Your task to perform on an android device: see tabs open on other devices in the chrome app Image 0: 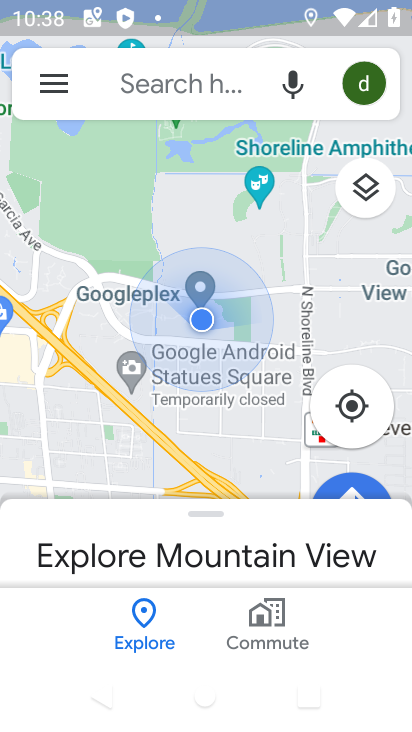
Step 0: press home button
Your task to perform on an android device: see tabs open on other devices in the chrome app Image 1: 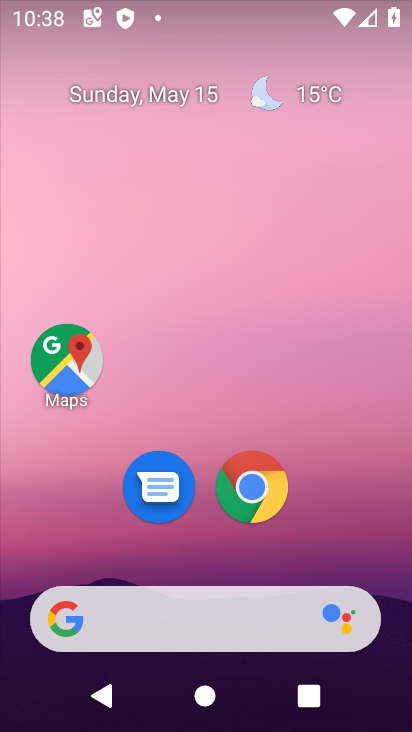
Step 1: click (253, 487)
Your task to perform on an android device: see tabs open on other devices in the chrome app Image 2: 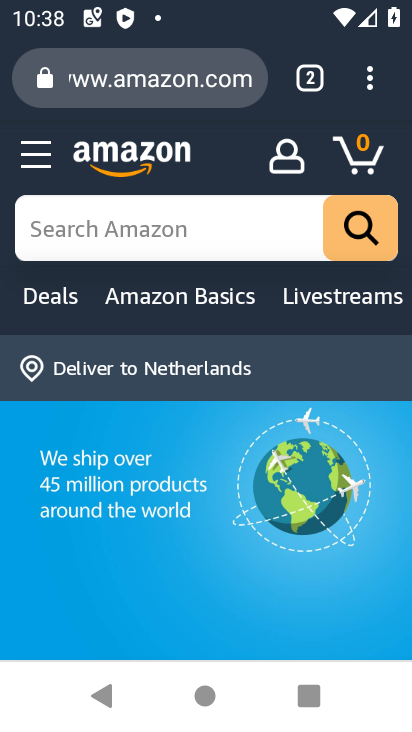
Step 2: click (372, 86)
Your task to perform on an android device: see tabs open on other devices in the chrome app Image 3: 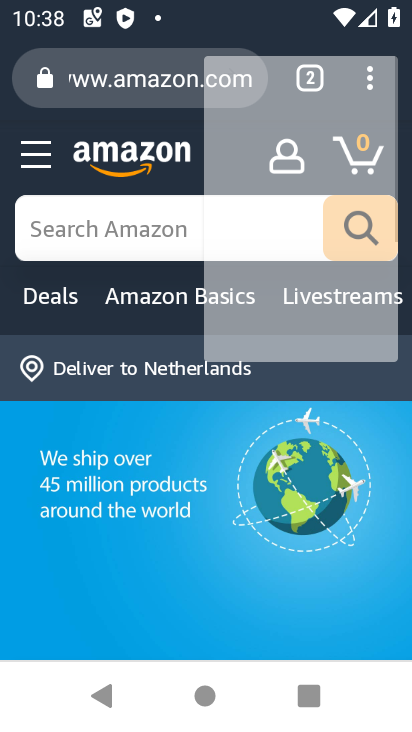
Step 3: click (372, 86)
Your task to perform on an android device: see tabs open on other devices in the chrome app Image 4: 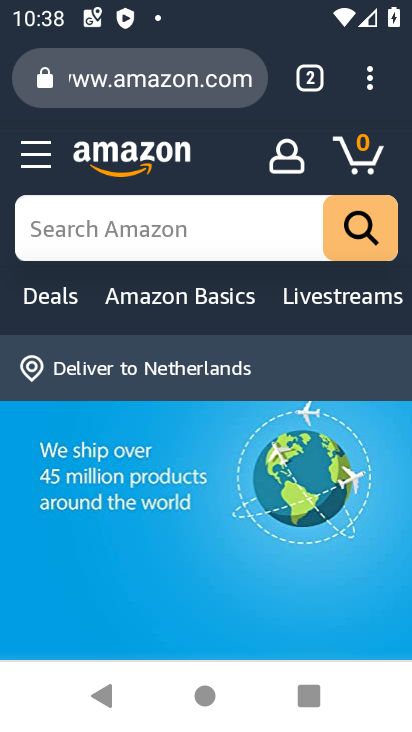
Step 4: click (369, 84)
Your task to perform on an android device: see tabs open on other devices in the chrome app Image 5: 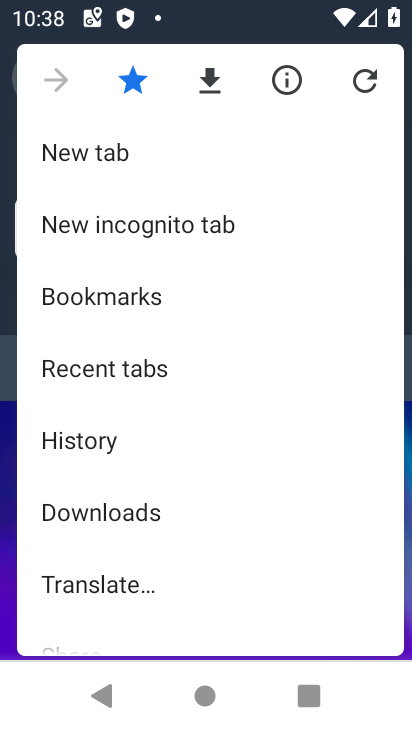
Step 5: click (126, 361)
Your task to perform on an android device: see tabs open on other devices in the chrome app Image 6: 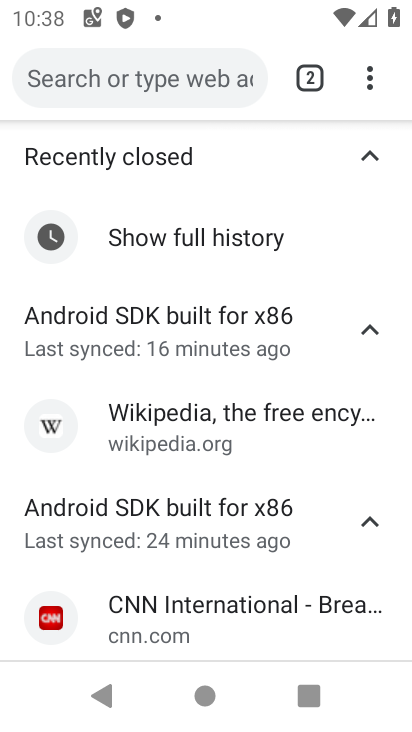
Step 6: task complete